Your task to perform on an android device: toggle pop-ups in chrome Image 0: 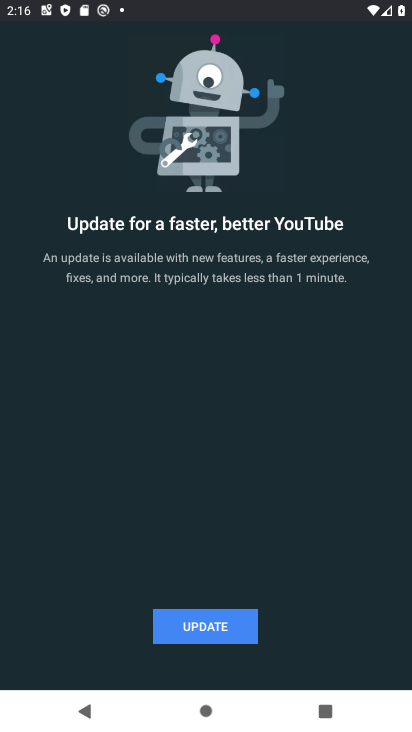
Step 0: press home button
Your task to perform on an android device: toggle pop-ups in chrome Image 1: 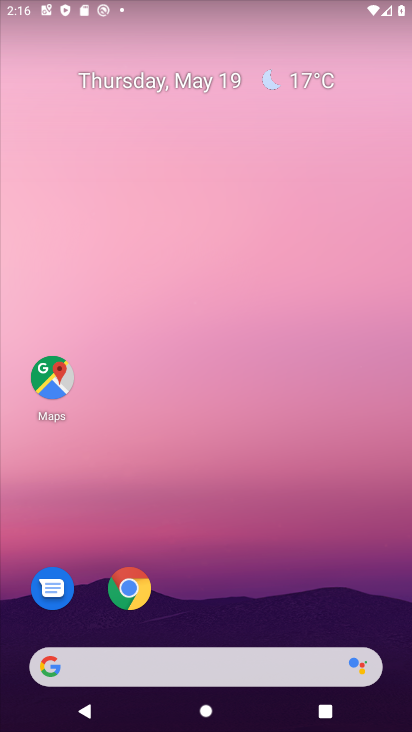
Step 1: click (126, 582)
Your task to perform on an android device: toggle pop-ups in chrome Image 2: 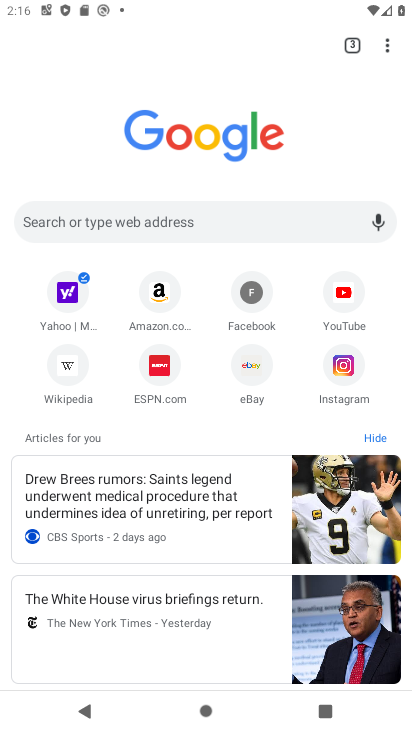
Step 2: drag from (392, 48) to (232, 382)
Your task to perform on an android device: toggle pop-ups in chrome Image 3: 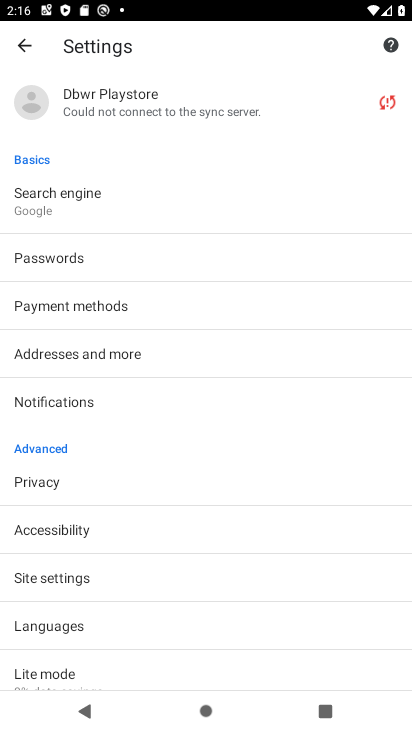
Step 3: click (59, 576)
Your task to perform on an android device: toggle pop-ups in chrome Image 4: 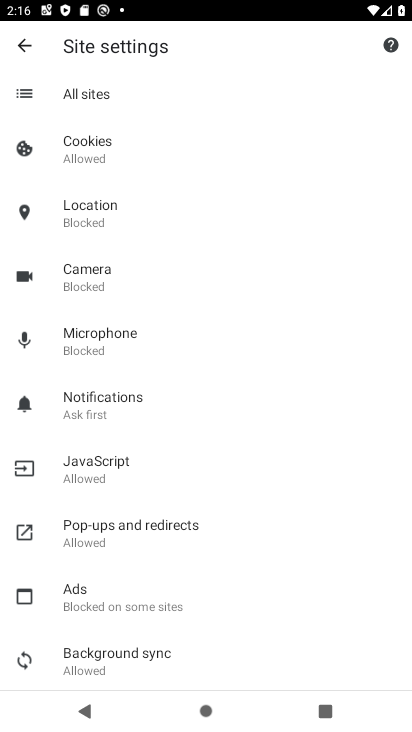
Step 4: click (128, 551)
Your task to perform on an android device: toggle pop-ups in chrome Image 5: 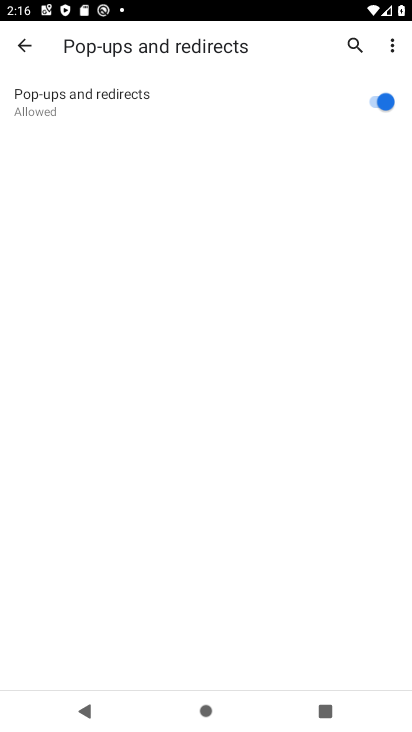
Step 5: click (381, 100)
Your task to perform on an android device: toggle pop-ups in chrome Image 6: 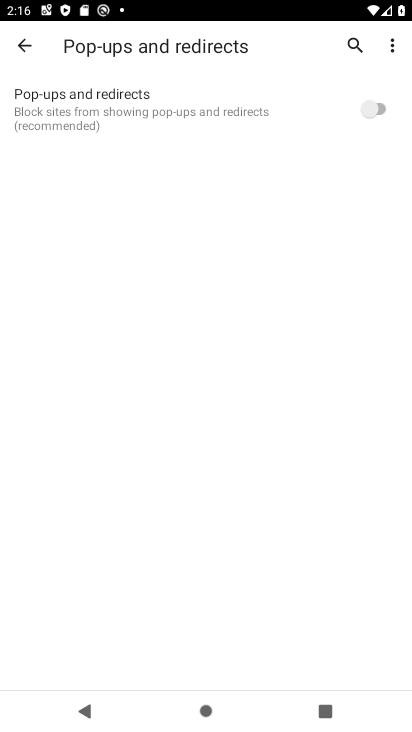
Step 6: task complete